Your task to perform on an android device: turn pop-ups off in chrome Image 0: 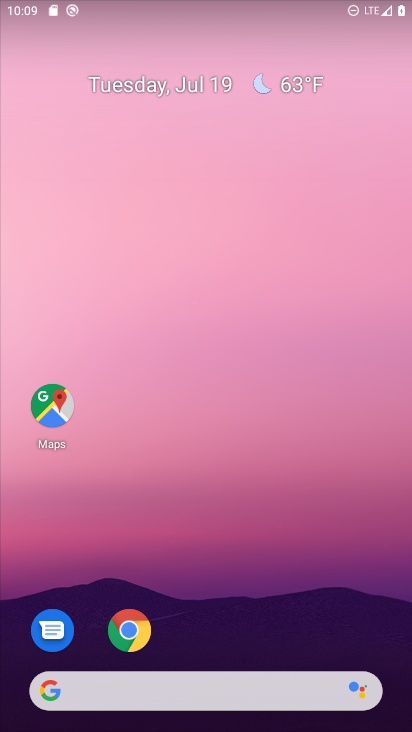
Step 0: click (127, 629)
Your task to perform on an android device: turn pop-ups off in chrome Image 1: 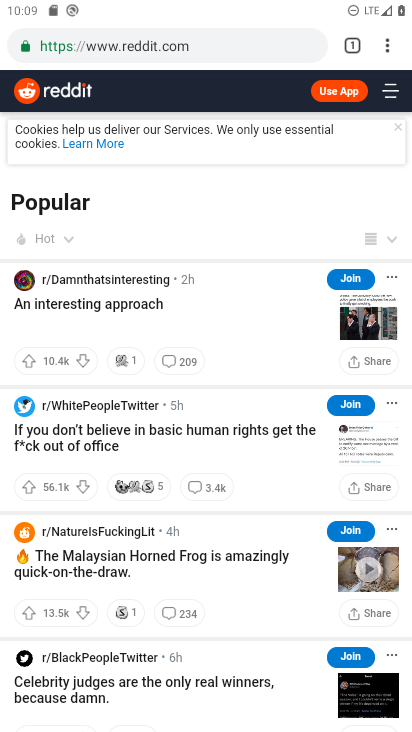
Step 1: click (387, 44)
Your task to perform on an android device: turn pop-ups off in chrome Image 2: 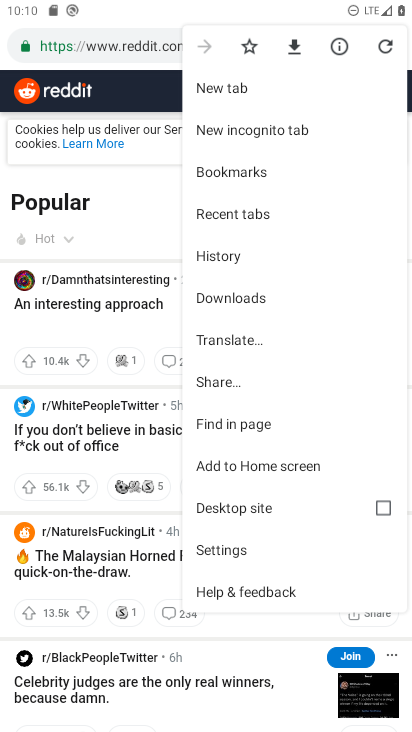
Step 2: click (221, 548)
Your task to perform on an android device: turn pop-ups off in chrome Image 3: 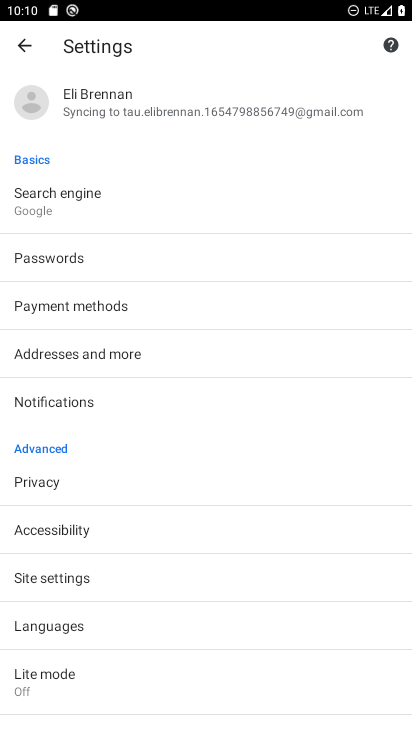
Step 3: click (64, 577)
Your task to perform on an android device: turn pop-ups off in chrome Image 4: 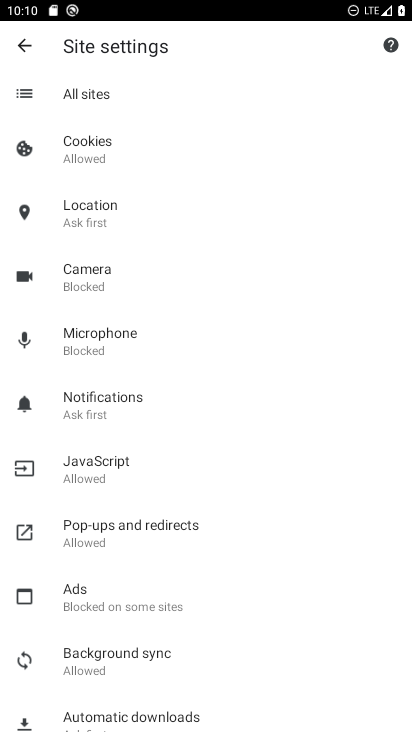
Step 4: click (84, 528)
Your task to perform on an android device: turn pop-ups off in chrome Image 5: 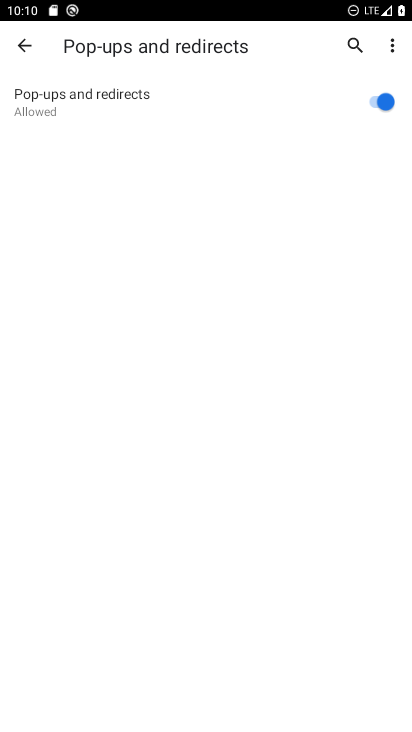
Step 5: click (381, 101)
Your task to perform on an android device: turn pop-ups off in chrome Image 6: 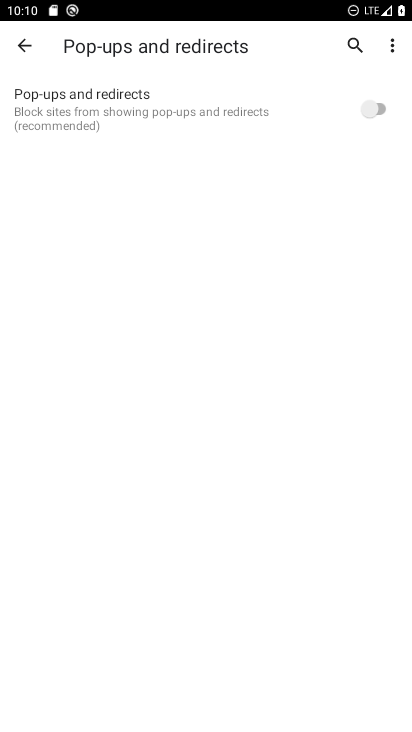
Step 6: task complete